Your task to perform on an android device: delete browsing data in the chrome app Image 0: 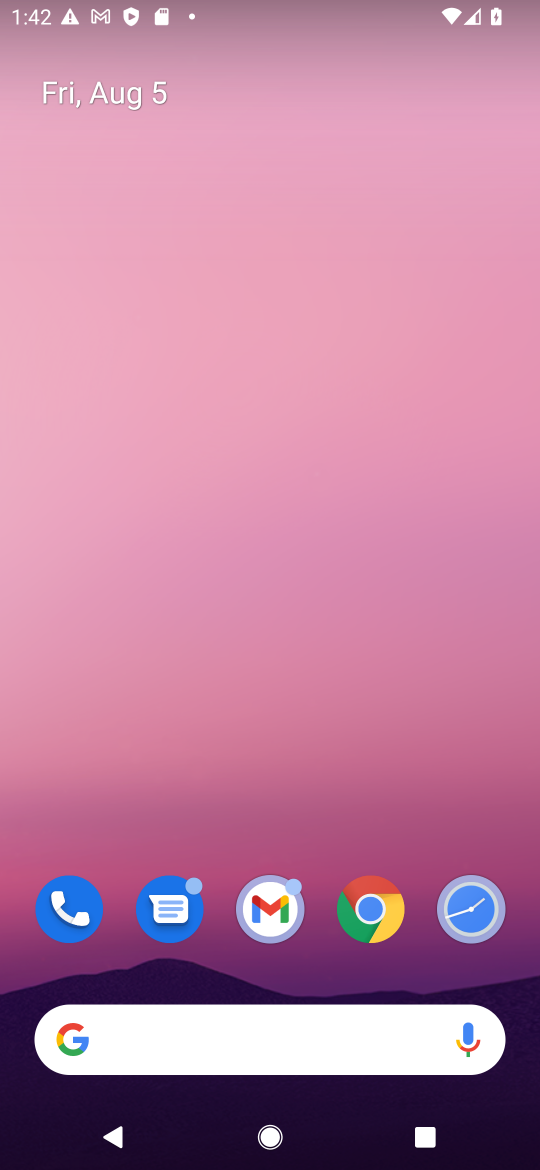
Step 0: click (370, 899)
Your task to perform on an android device: delete browsing data in the chrome app Image 1: 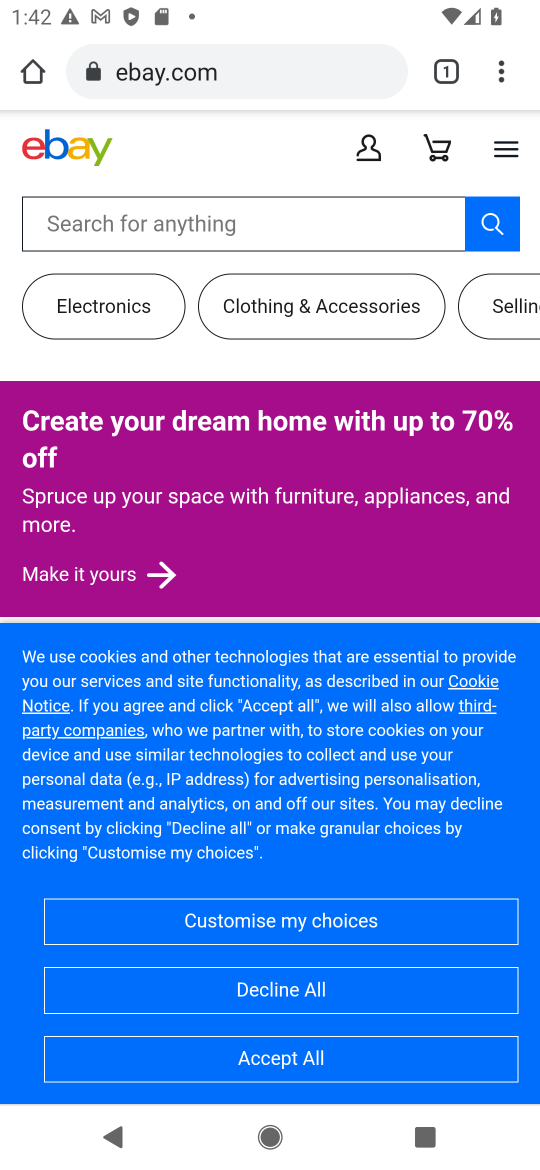
Step 1: click (501, 67)
Your task to perform on an android device: delete browsing data in the chrome app Image 2: 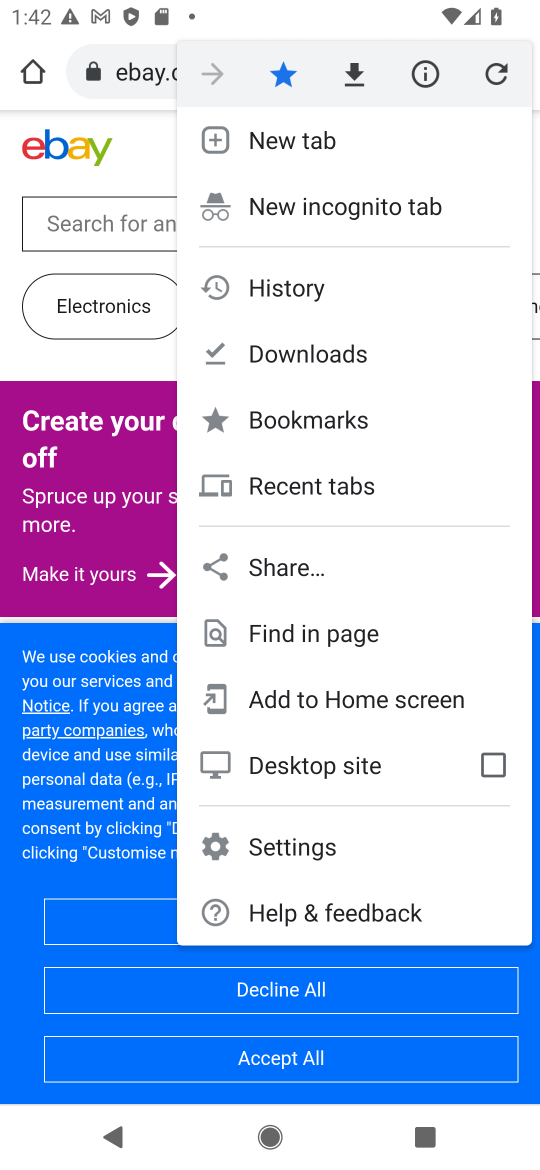
Step 2: click (262, 287)
Your task to perform on an android device: delete browsing data in the chrome app Image 3: 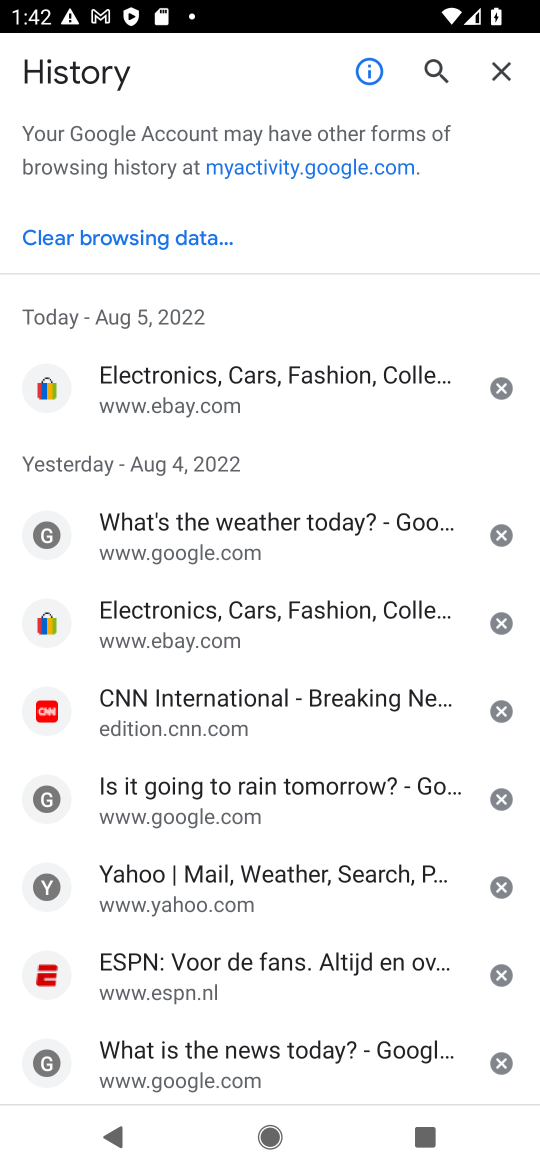
Step 3: click (134, 234)
Your task to perform on an android device: delete browsing data in the chrome app Image 4: 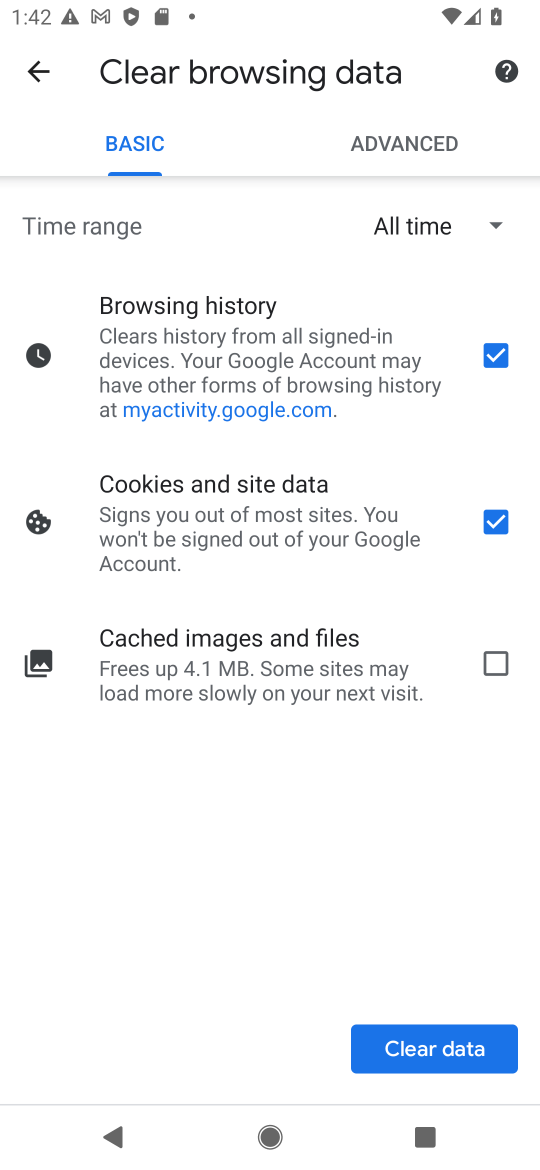
Step 4: click (447, 1036)
Your task to perform on an android device: delete browsing data in the chrome app Image 5: 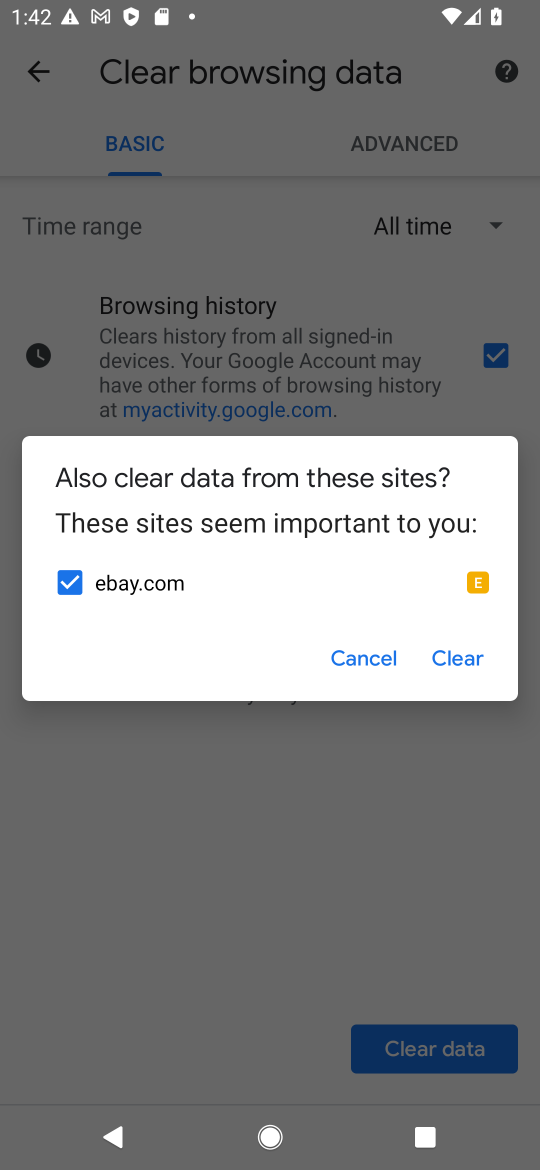
Step 5: click (466, 640)
Your task to perform on an android device: delete browsing data in the chrome app Image 6: 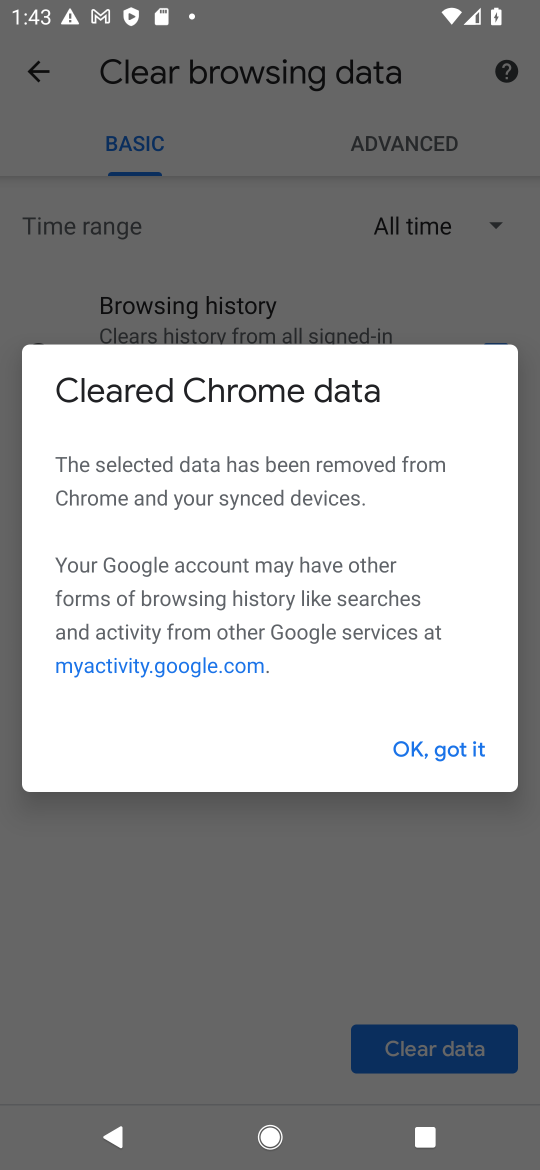
Step 6: click (416, 750)
Your task to perform on an android device: delete browsing data in the chrome app Image 7: 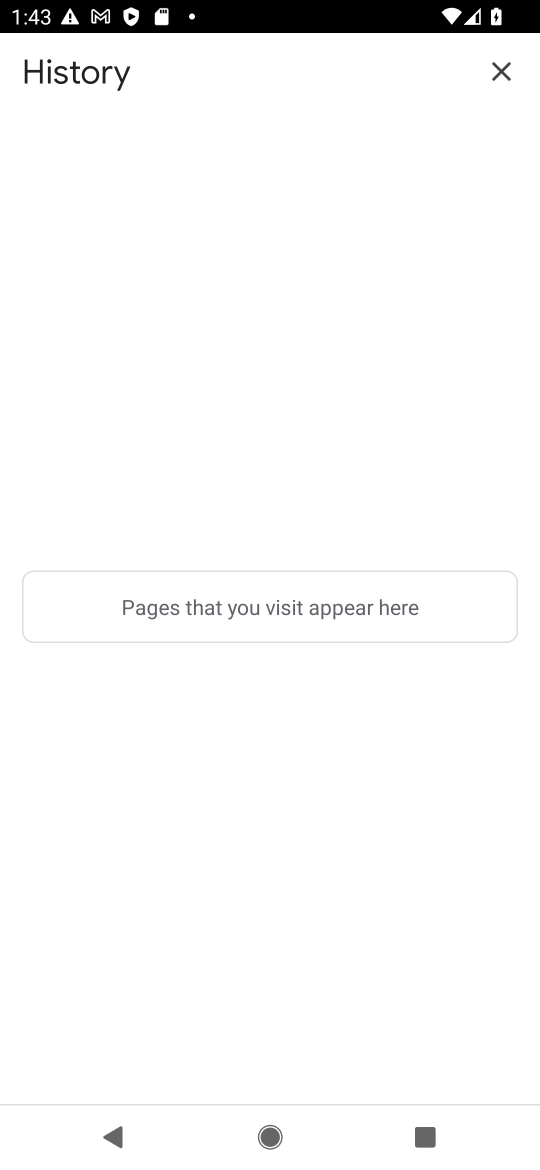
Step 7: task complete